Your task to perform on an android device: turn off notifications in google photos Image 0: 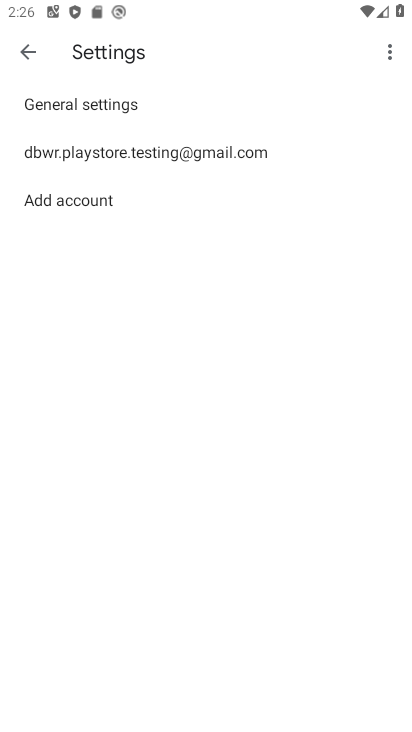
Step 0: press home button
Your task to perform on an android device: turn off notifications in google photos Image 1: 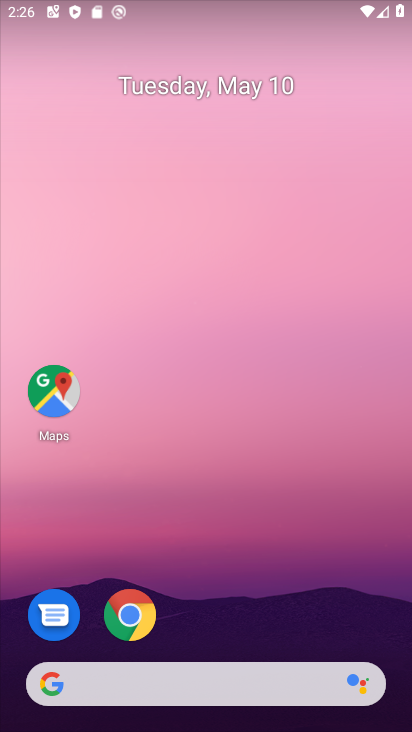
Step 1: drag from (329, 558) to (326, 86)
Your task to perform on an android device: turn off notifications in google photos Image 2: 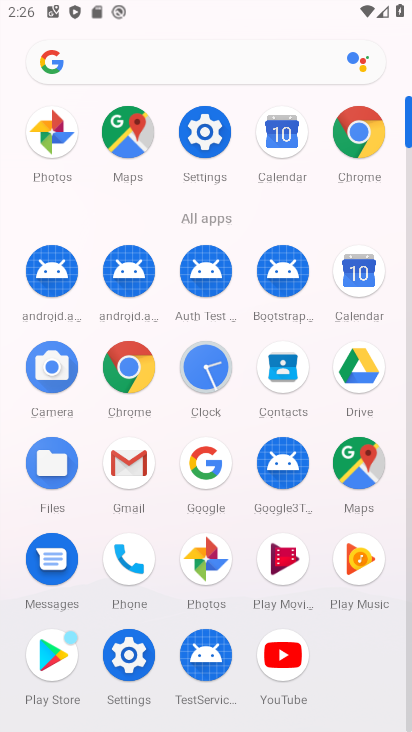
Step 2: click (201, 564)
Your task to perform on an android device: turn off notifications in google photos Image 3: 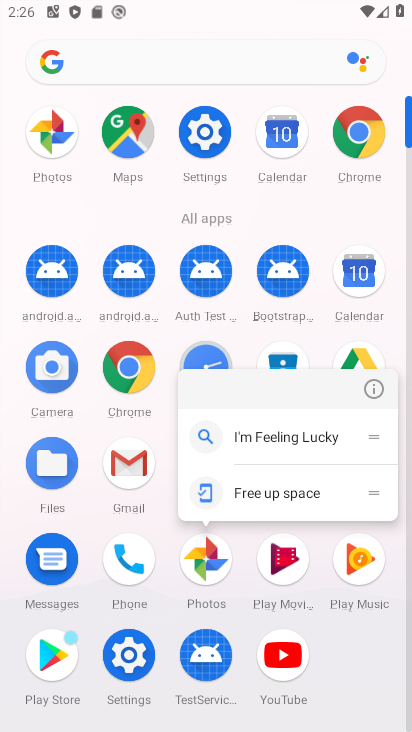
Step 3: click (379, 382)
Your task to perform on an android device: turn off notifications in google photos Image 4: 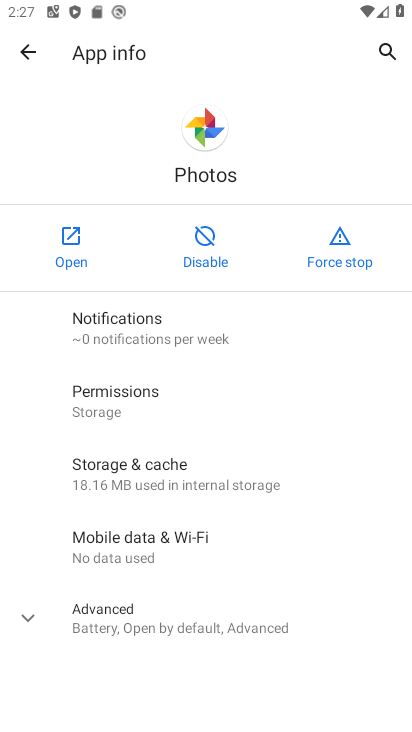
Step 4: click (117, 339)
Your task to perform on an android device: turn off notifications in google photos Image 5: 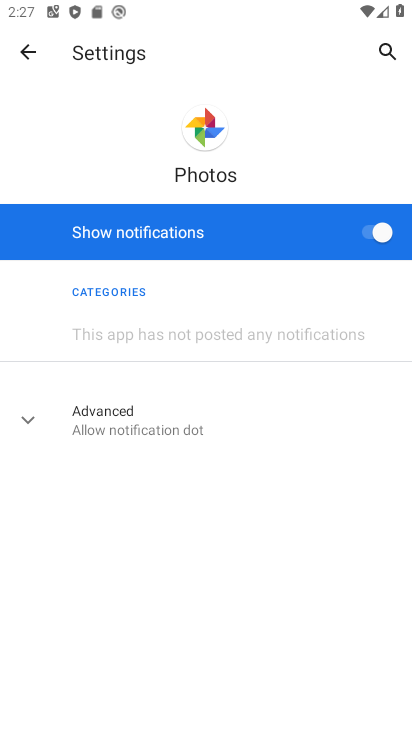
Step 5: click (374, 234)
Your task to perform on an android device: turn off notifications in google photos Image 6: 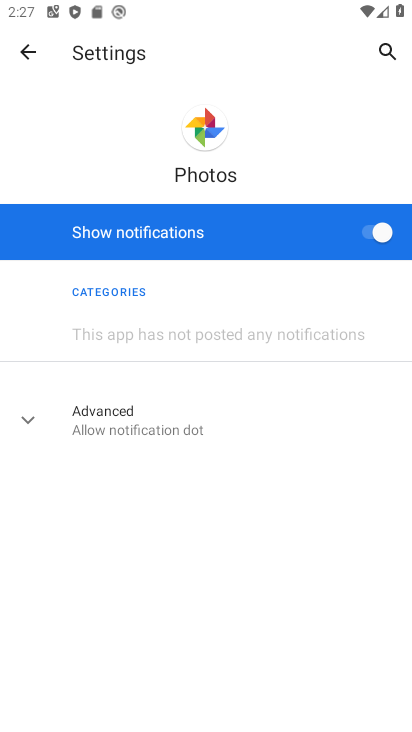
Step 6: click (368, 235)
Your task to perform on an android device: turn off notifications in google photos Image 7: 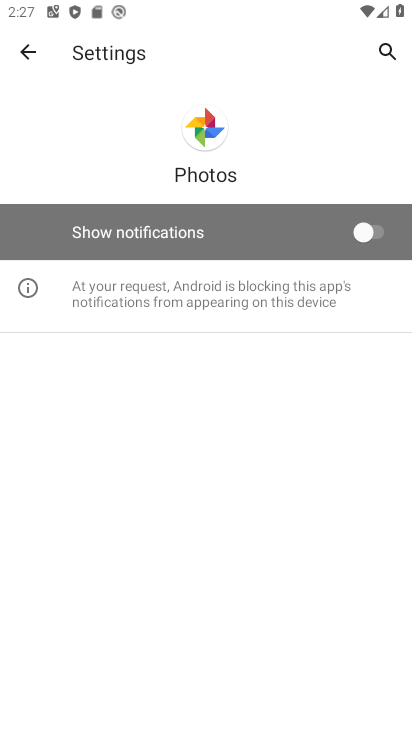
Step 7: task complete